Your task to perform on an android device: turn off sleep mode Image 0: 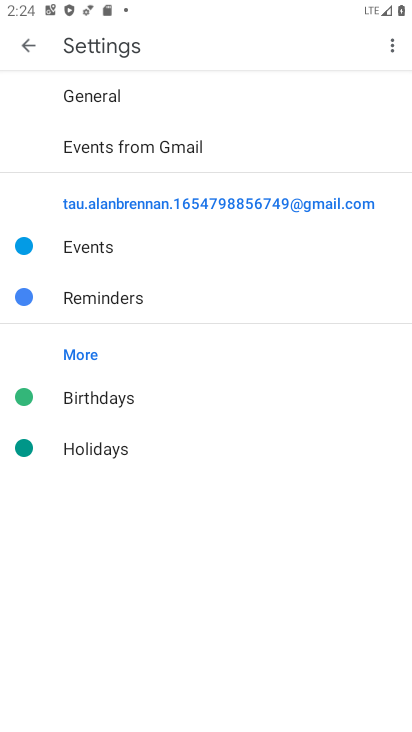
Step 0: task impossible